Your task to perform on an android device: check storage Image 0: 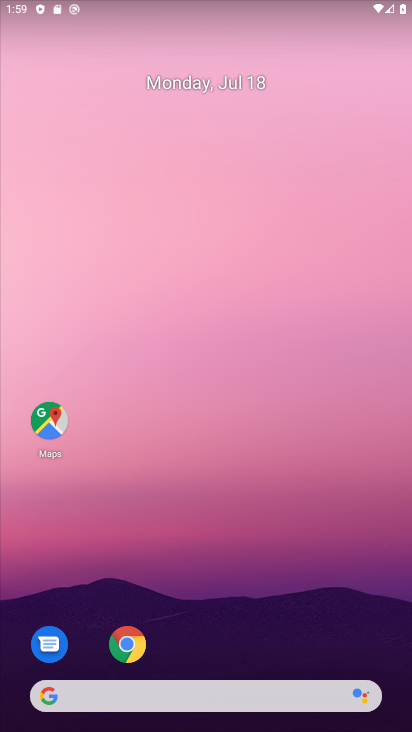
Step 0: drag from (308, 599) to (258, 340)
Your task to perform on an android device: check storage Image 1: 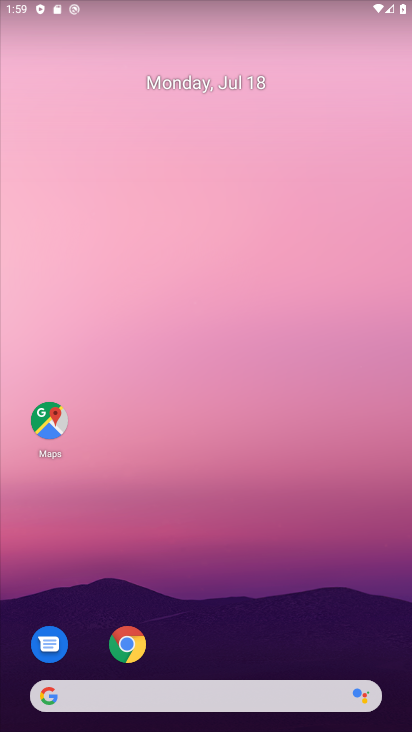
Step 1: drag from (314, 656) to (154, 202)
Your task to perform on an android device: check storage Image 2: 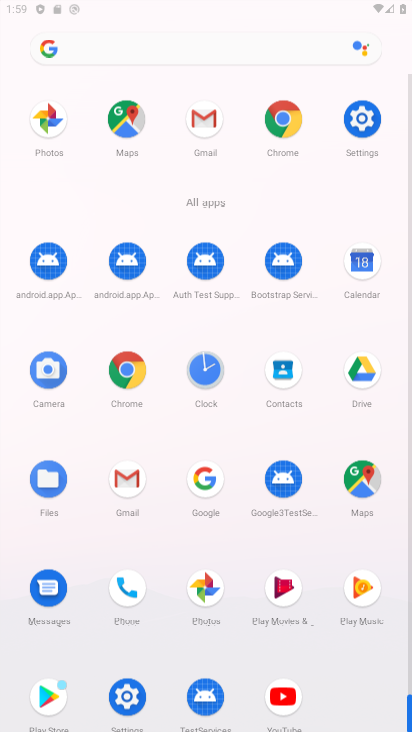
Step 2: drag from (213, 538) to (202, 231)
Your task to perform on an android device: check storage Image 3: 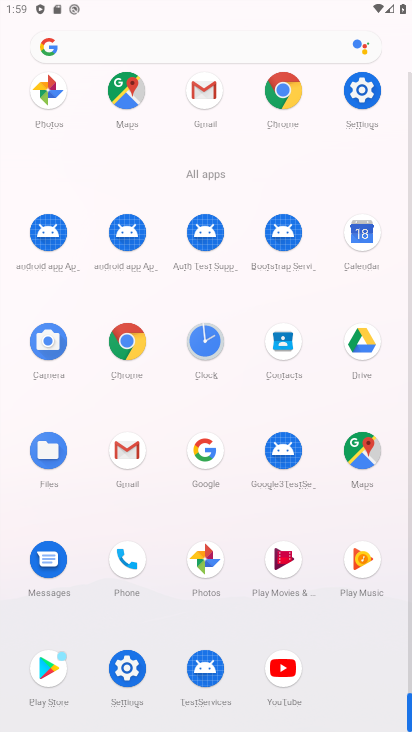
Step 3: click (359, 94)
Your task to perform on an android device: check storage Image 4: 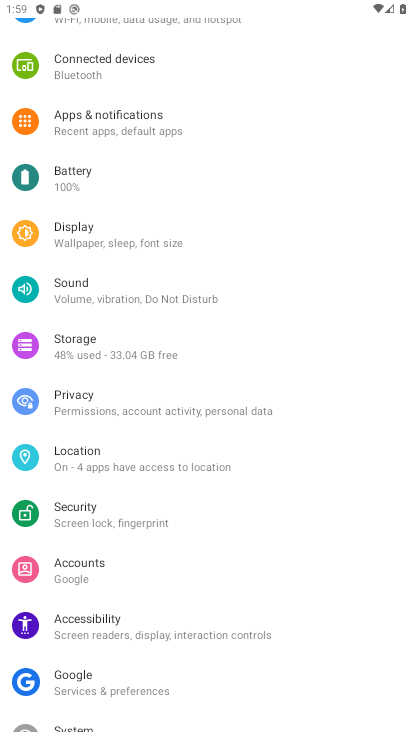
Step 4: click (82, 346)
Your task to perform on an android device: check storage Image 5: 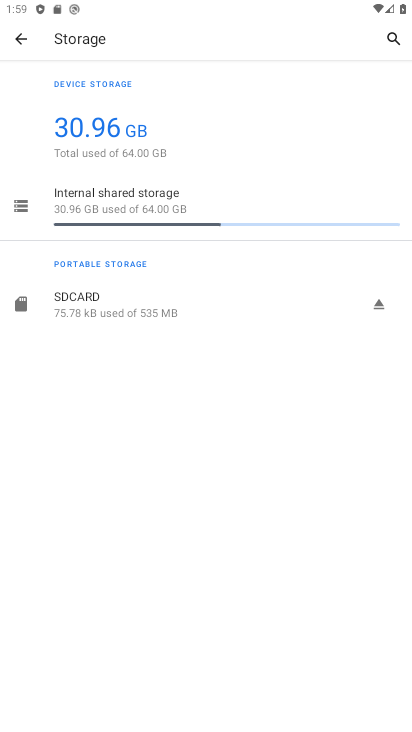
Step 5: task complete